Your task to perform on an android device: Search for sushi restaurants on Maps Image 0: 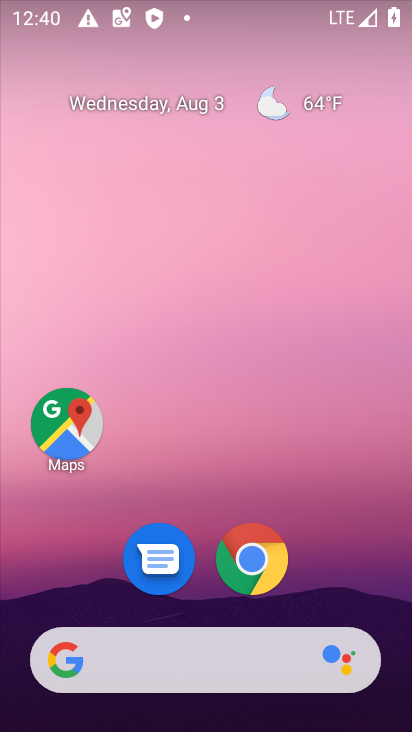
Step 0: click (60, 412)
Your task to perform on an android device: Search for sushi restaurants on Maps Image 1: 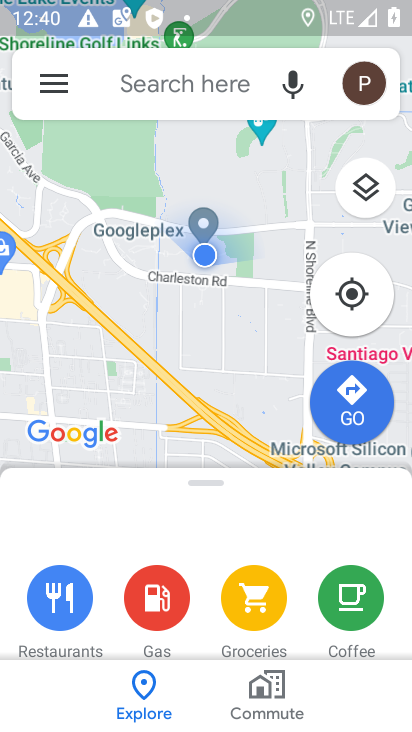
Step 1: click (199, 93)
Your task to perform on an android device: Search for sushi restaurants on Maps Image 2: 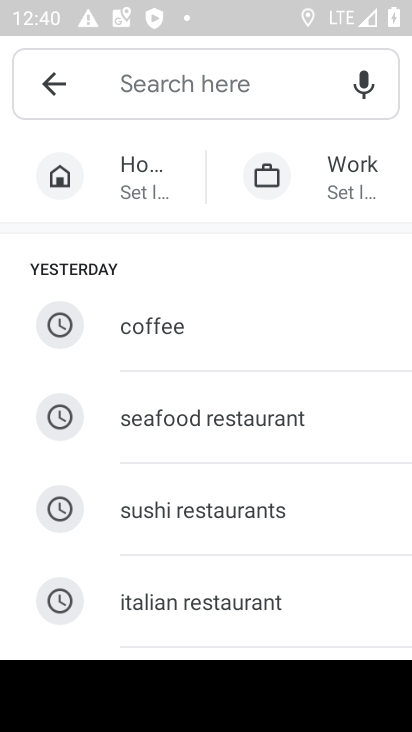
Step 2: type "sushi restaurants"
Your task to perform on an android device: Search for sushi restaurants on Maps Image 3: 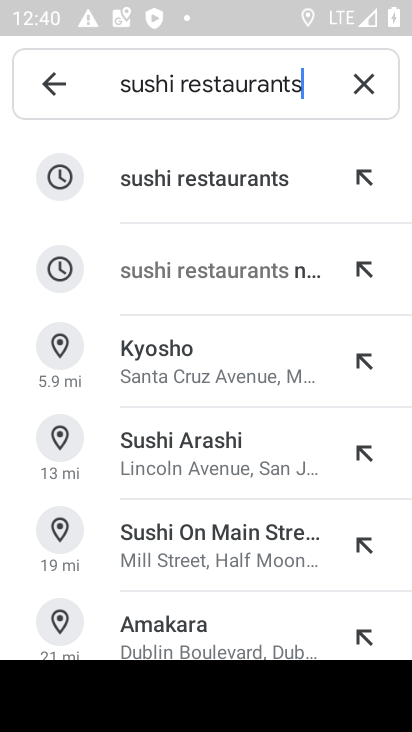
Step 3: click (225, 179)
Your task to perform on an android device: Search for sushi restaurants on Maps Image 4: 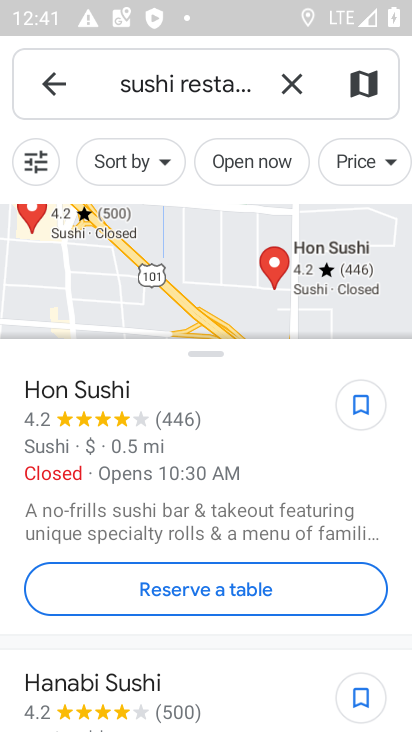
Step 4: task complete